Your task to perform on an android device: Open maps Image 0: 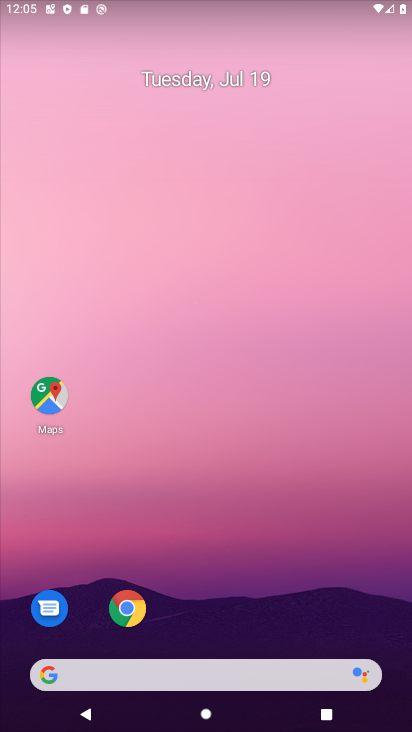
Step 0: click (238, 369)
Your task to perform on an android device: Open maps Image 1: 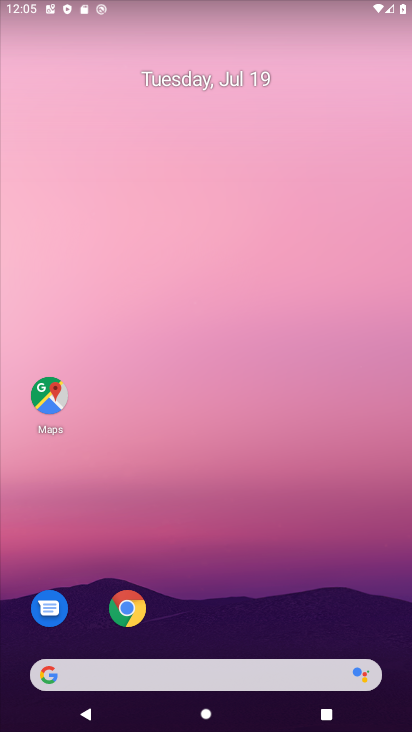
Step 1: click (63, 397)
Your task to perform on an android device: Open maps Image 2: 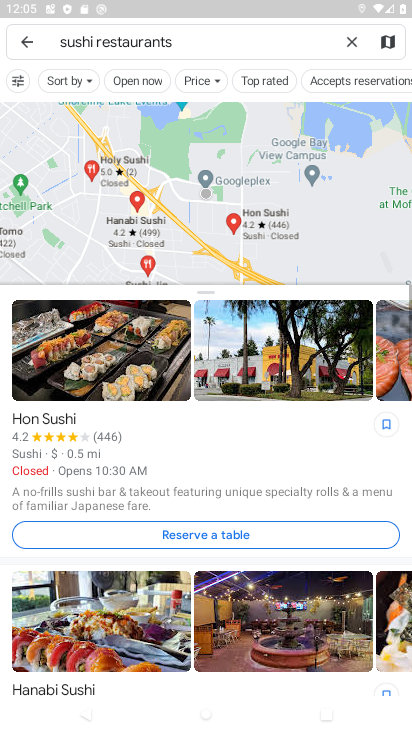
Step 2: task complete